Your task to perform on an android device: see creations saved in the google photos Image 0: 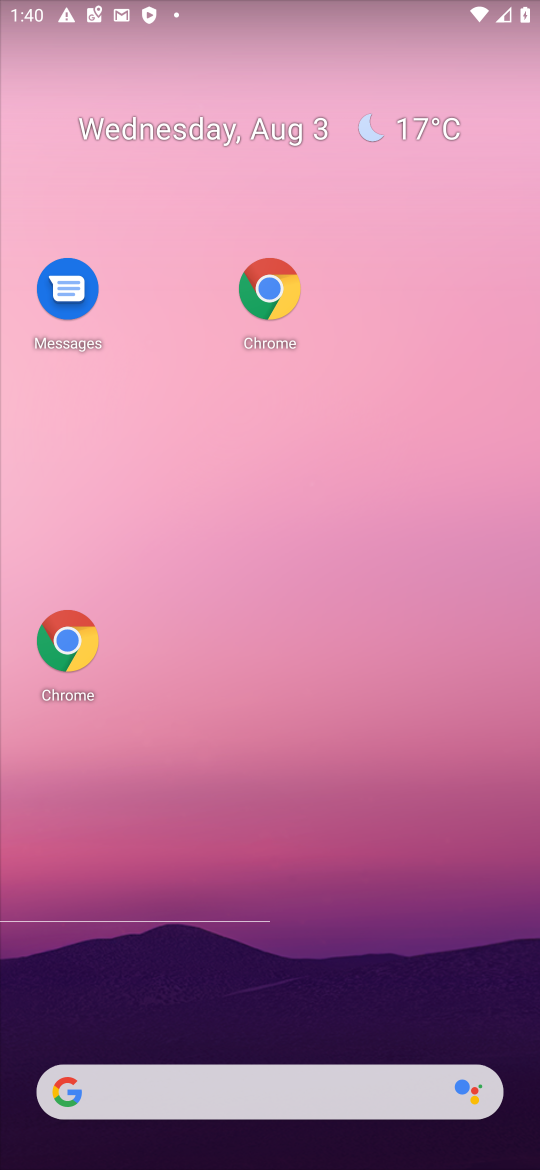
Step 0: drag from (341, 1023) to (329, 189)
Your task to perform on an android device: see creations saved in the google photos Image 1: 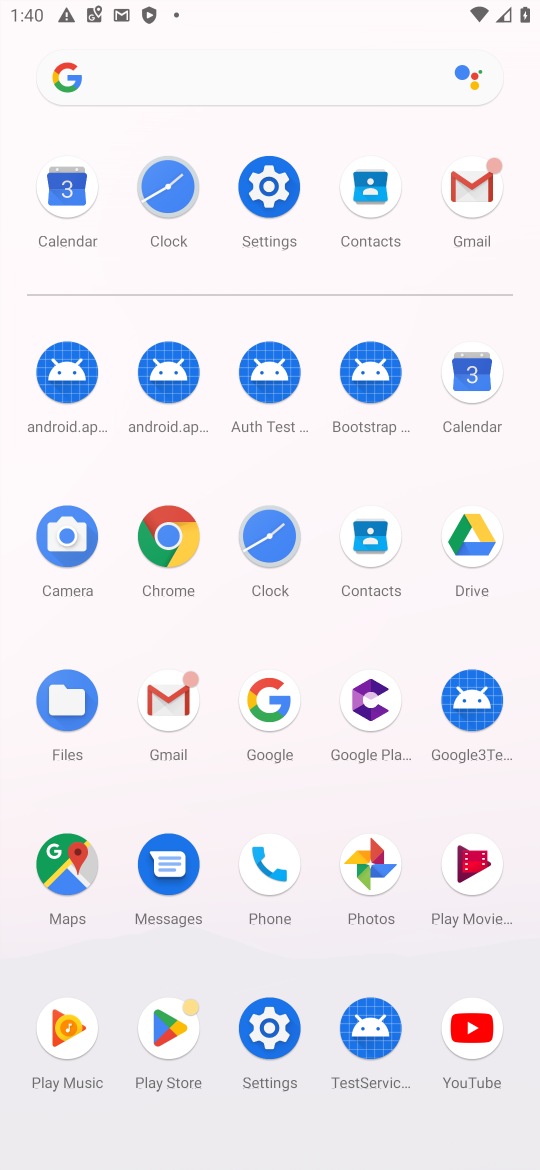
Step 1: click (381, 876)
Your task to perform on an android device: see creations saved in the google photos Image 2: 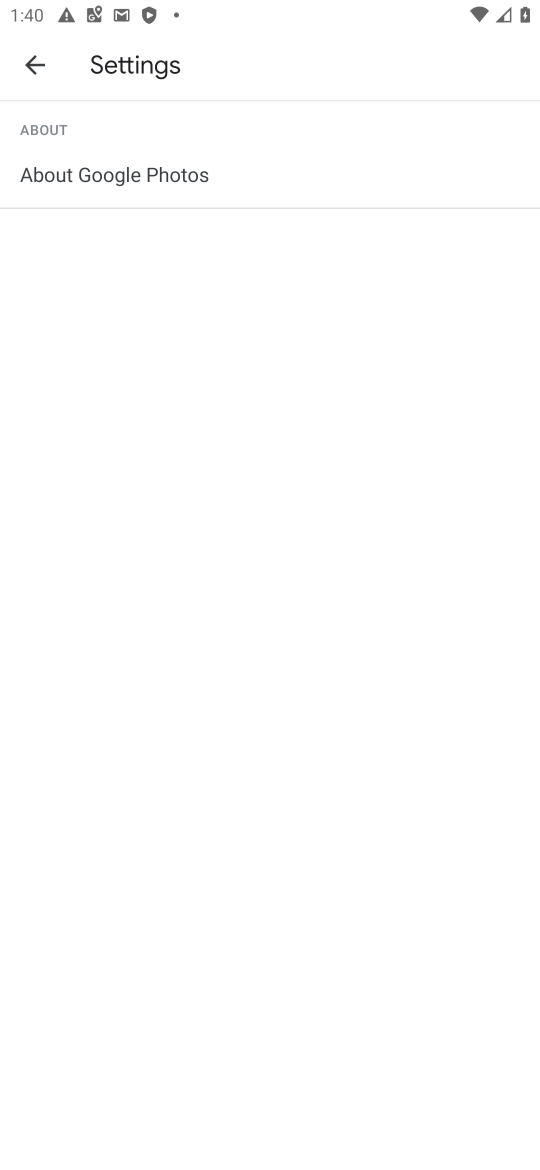
Step 2: task complete